Your task to perform on an android device: change the clock style Image 0: 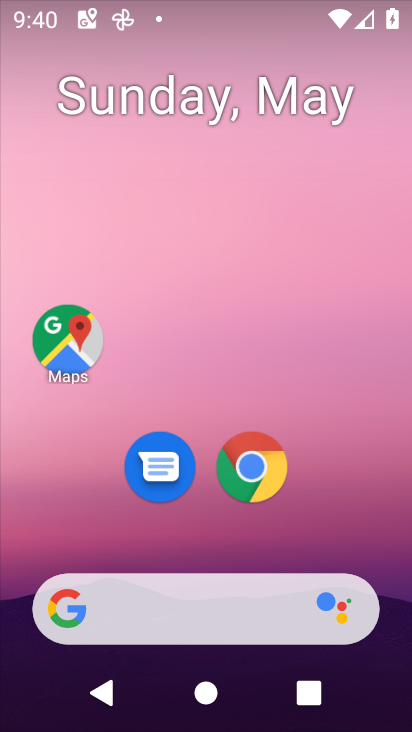
Step 0: drag from (358, 477) to (327, 181)
Your task to perform on an android device: change the clock style Image 1: 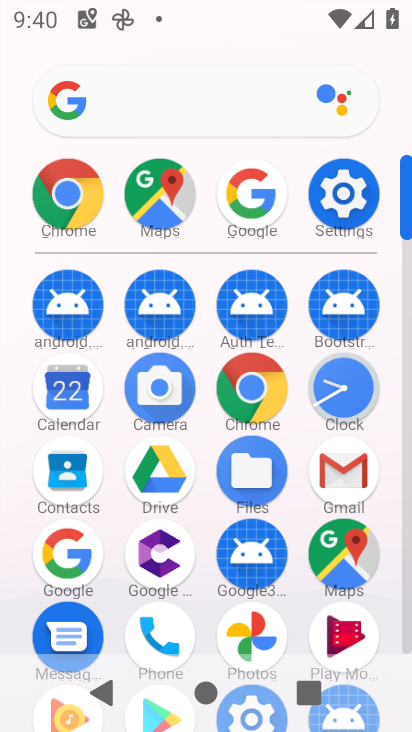
Step 1: click (334, 397)
Your task to perform on an android device: change the clock style Image 2: 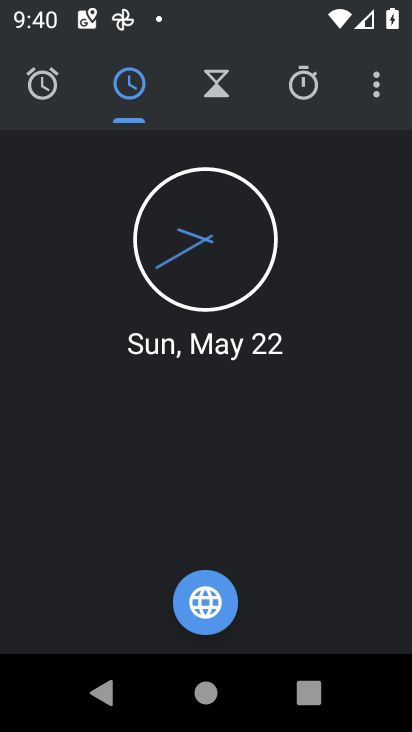
Step 2: click (377, 94)
Your task to perform on an android device: change the clock style Image 3: 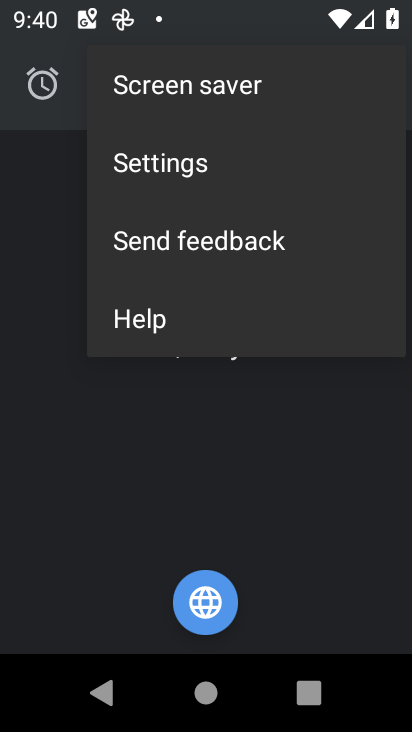
Step 3: click (238, 162)
Your task to perform on an android device: change the clock style Image 4: 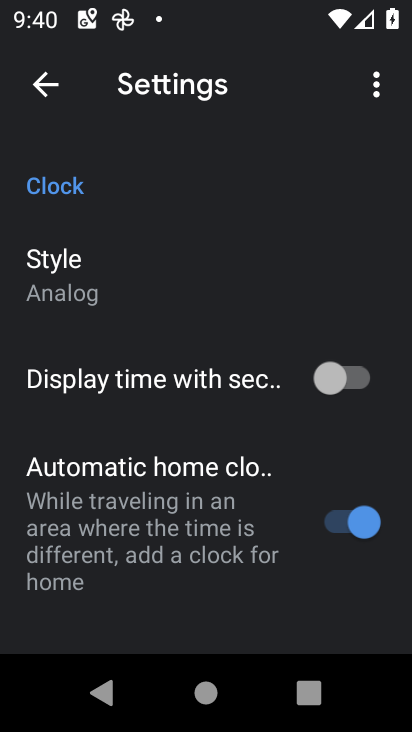
Step 4: click (129, 269)
Your task to perform on an android device: change the clock style Image 5: 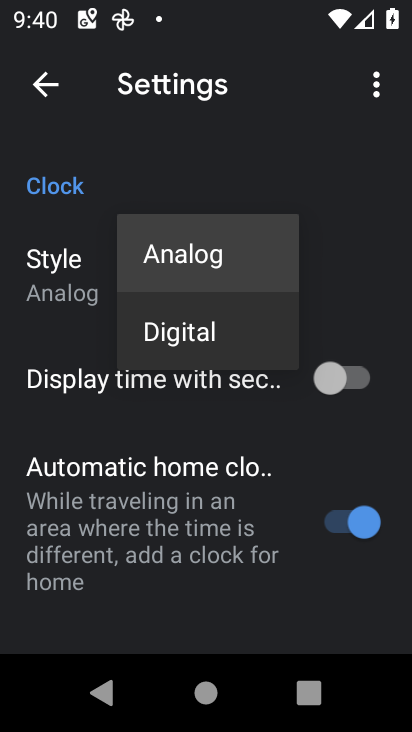
Step 5: click (189, 348)
Your task to perform on an android device: change the clock style Image 6: 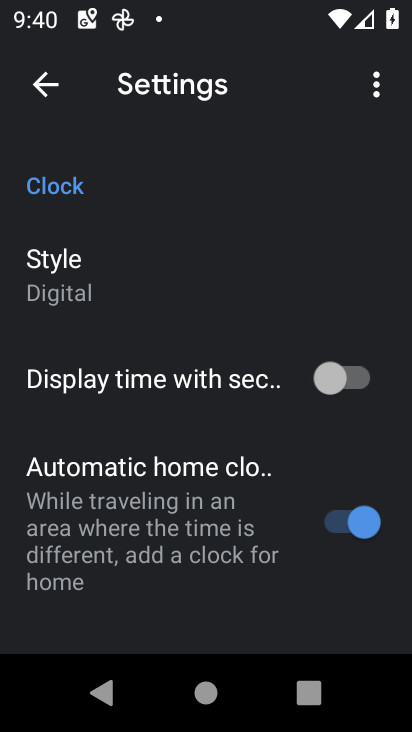
Step 6: task complete